Your task to perform on an android device: find snoozed emails in the gmail app Image 0: 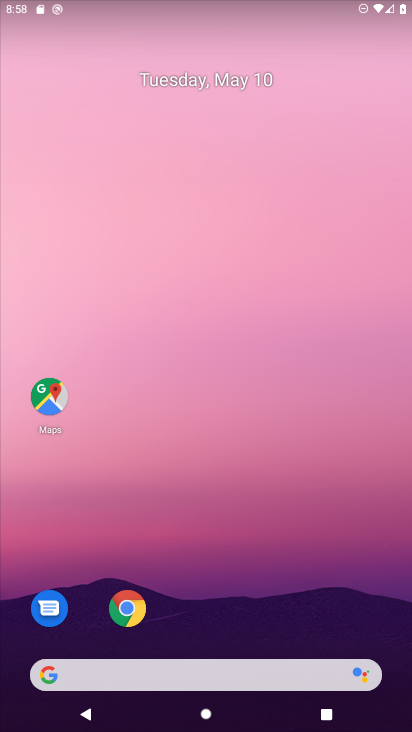
Step 0: drag from (341, 635) to (290, 41)
Your task to perform on an android device: find snoozed emails in the gmail app Image 1: 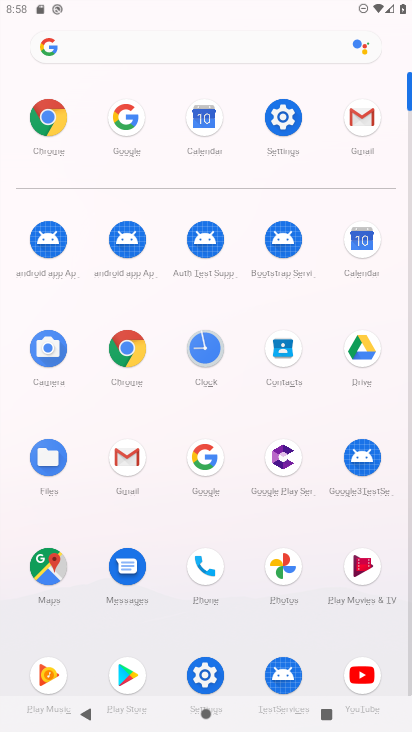
Step 1: click (131, 467)
Your task to perform on an android device: find snoozed emails in the gmail app Image 2: 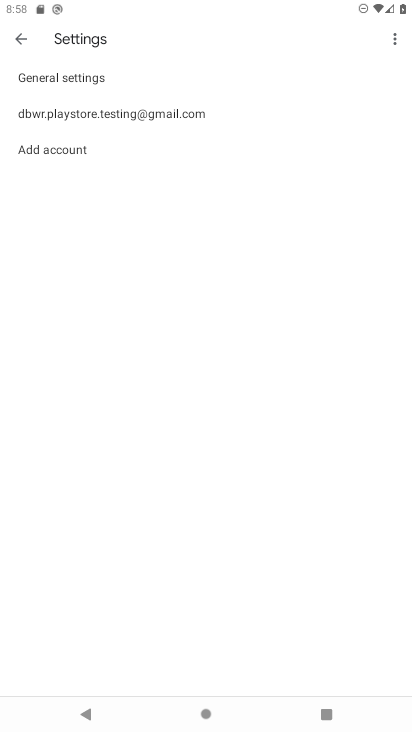
Step 2: press back button
Your task to perform on an android device: find snoozed emails in the gmail app Image 3: 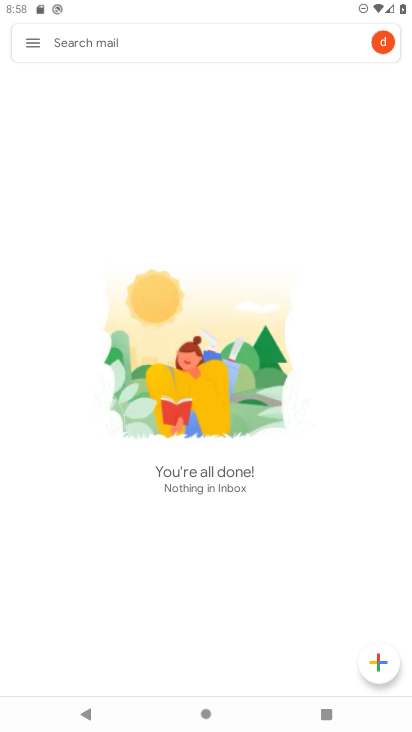
Step 3: click (28, 41)
Your task to perform on an android device: find snoozed emails in the gmail app Image 4: 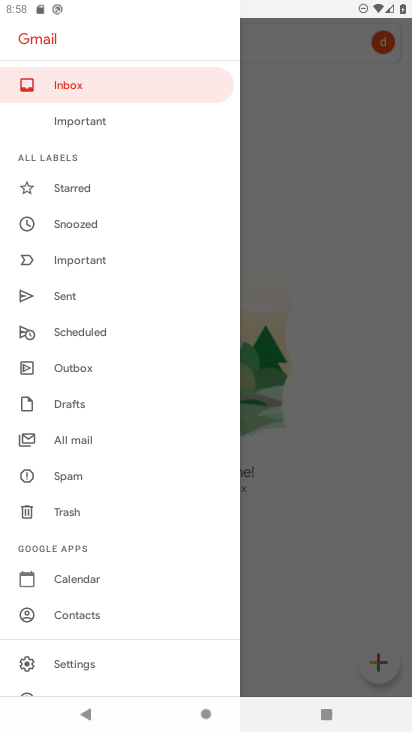
Step 4: click (87, 223)
Your task to perform on an android device: find snoozed emails in the gmail app Image 5: 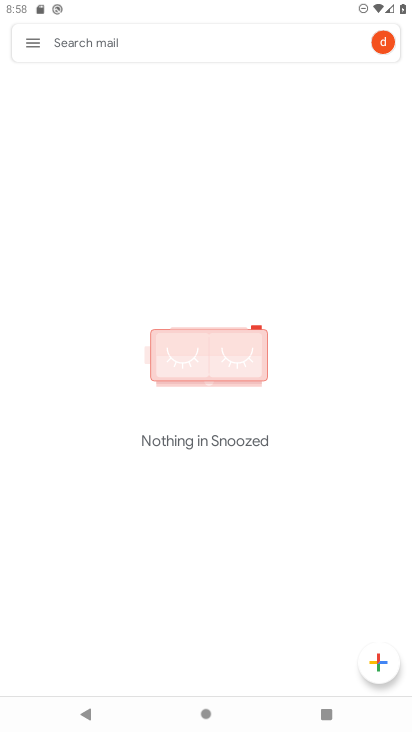
Step 5: task complete